Your task to perform on an android device: set default search engine in the chrome app Image 0: 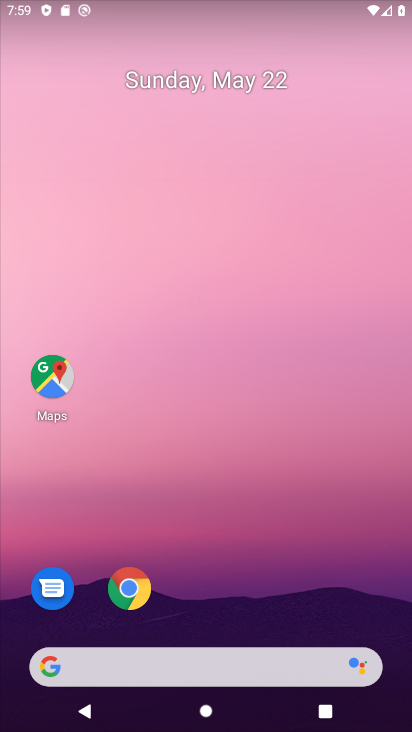
Step 0: click (150, 580)
Your task to perform on an android device: set default search engine in the chrome app Image 1: 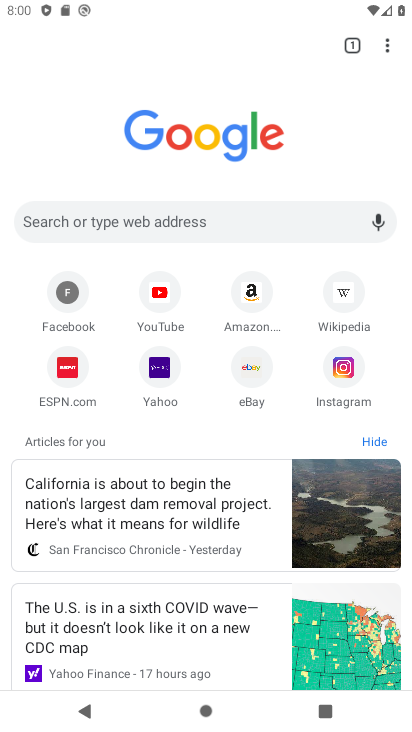
Step 1: click (389, 38)
Your task to perform on an android device: set default search engine in the chrome app Image 2: 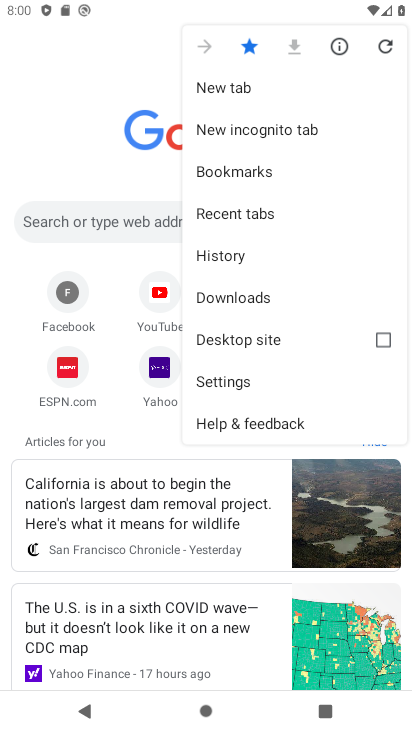
Step 2: click (216, 386)
Your task to perform on an android device: set default search engine in the chrome app Image 3: 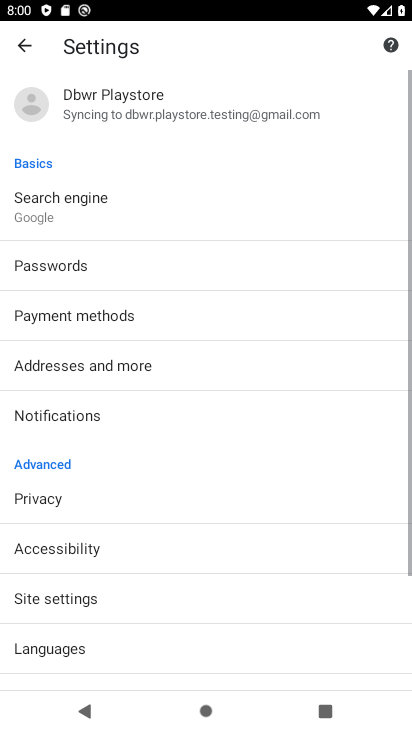
Step 3: click (119, 193)
Your task to perform on an android device: set default search engine in the chrome app Image 4: 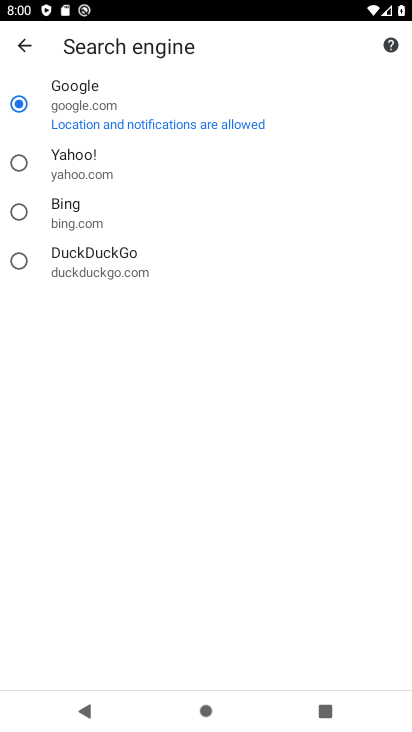
Step 4: click (29, 162)
Your task to perform on an android device: set default search engine in the chrome app Image 5: 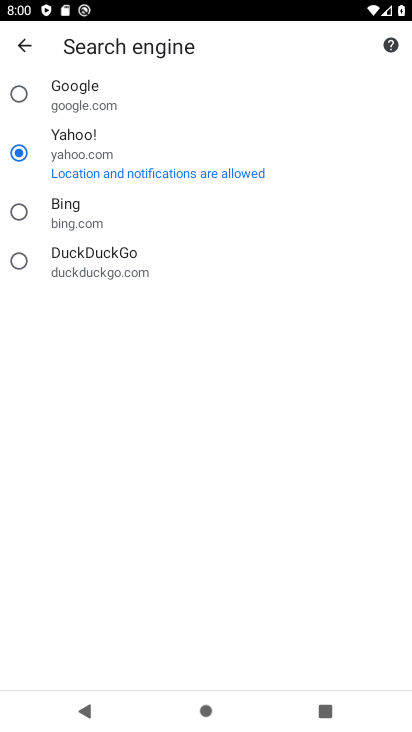
Step 5: task complete